Your task to perform on an android device: Show the shopping cart on amazon.com. Image 0: 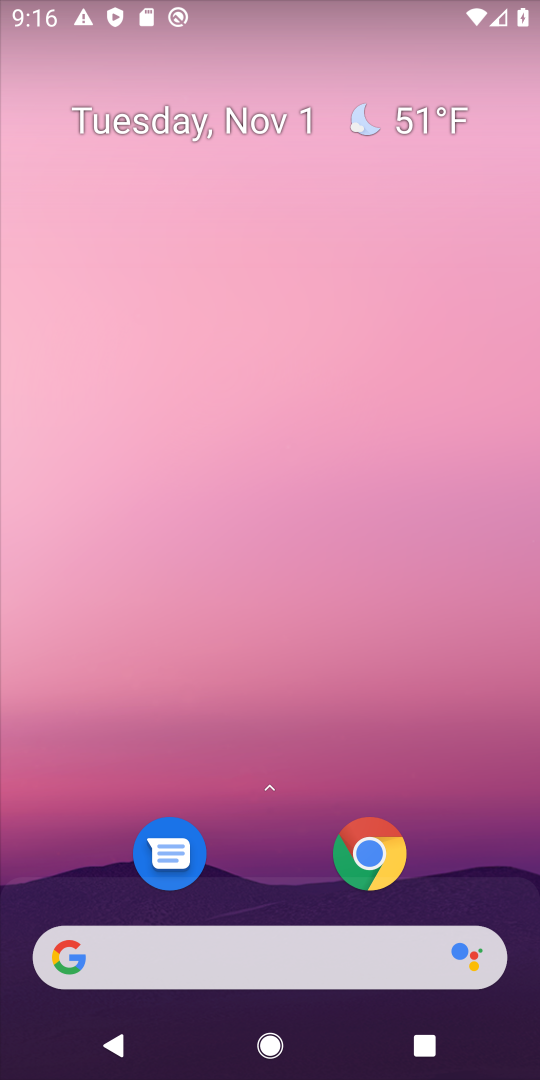
Step 0: click (317, 985)
Your task to perform on an android device: Show the shopping cart on amazon.com. Image 1: 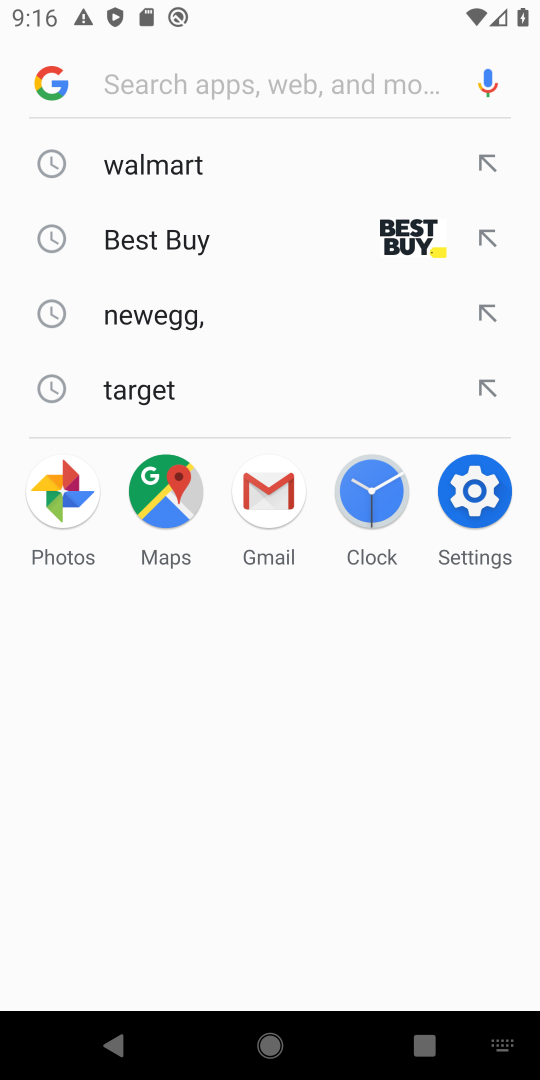
Step 1: type "amazon"
Your task to perform on an android device: Show the shopping cart on amazon.com. Image 2: 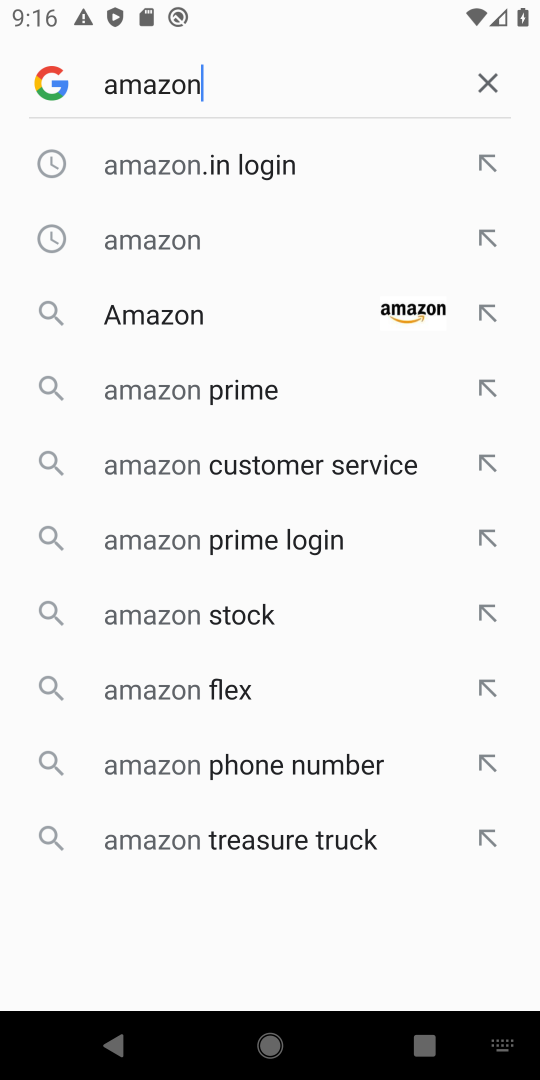
Step 2: click (164, 242)
Your task to perform on an android device: Show the shopping cart on amazon.com. Image 3: 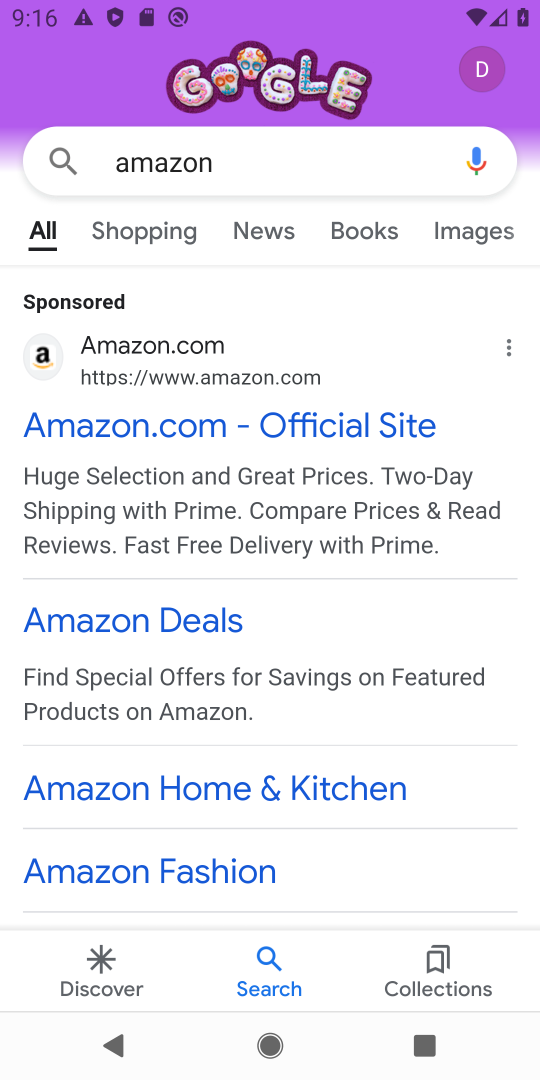
Step 3: click (151, 412)
Your task to perform on an android device: Show the shopping cart on amazon.com. Image 4: 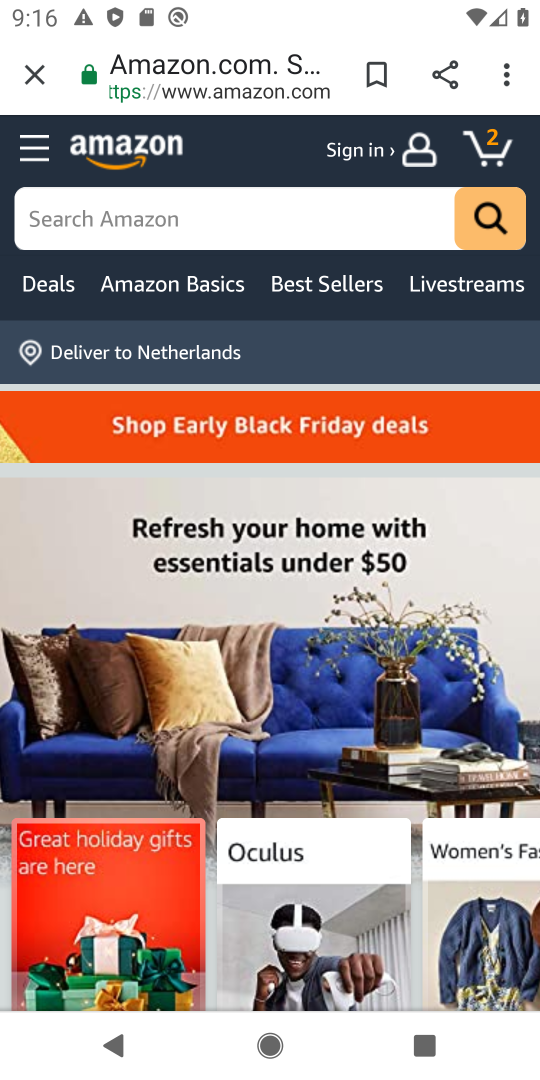
Step 4: click (276, 240)
Your task to perform on an android device: Show the shopping cart on amazon.com. Image 5: 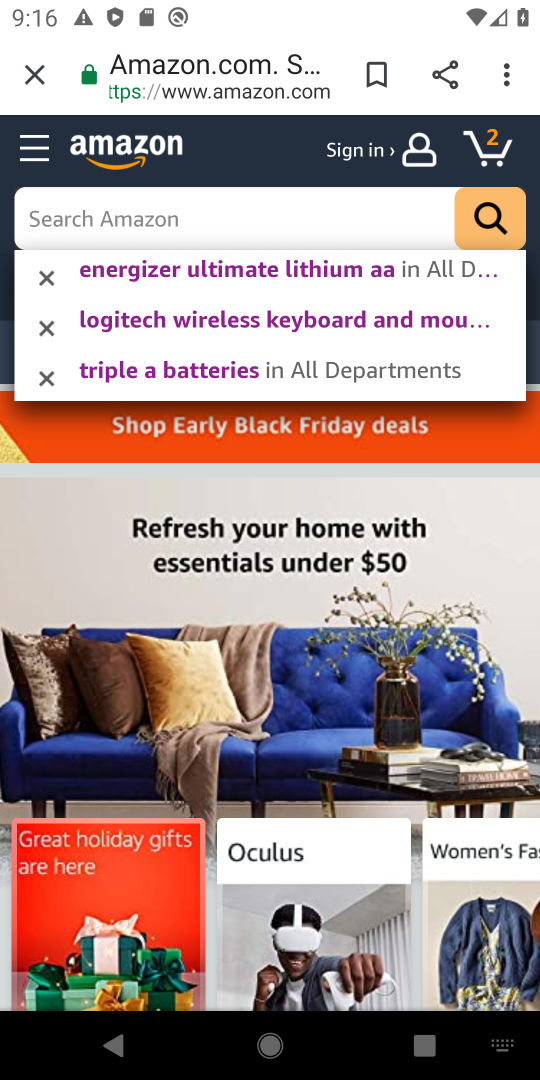
Step 5: click (496, 164)
Your task to perform on an android device: Show the shopping cart on amazon.com. Image 6: 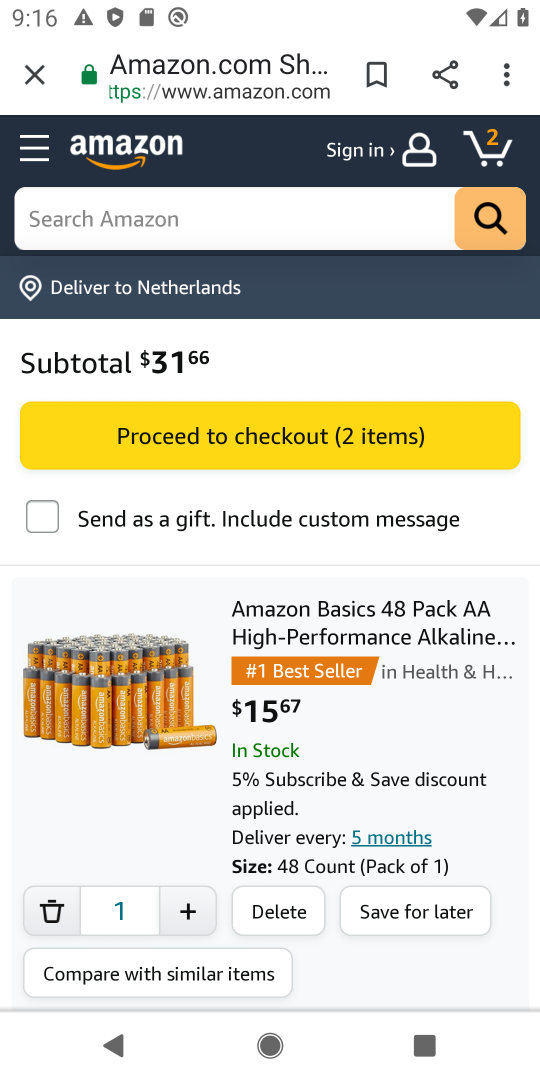
Step 6: task complete